Your task to perform on an android device: See recent photos Image 0: 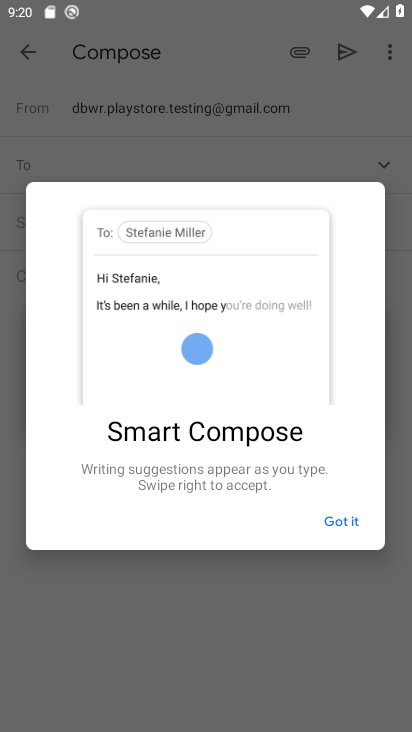
Step 0: press home button
Your task to perform on an android device: See recent photos Image 1: 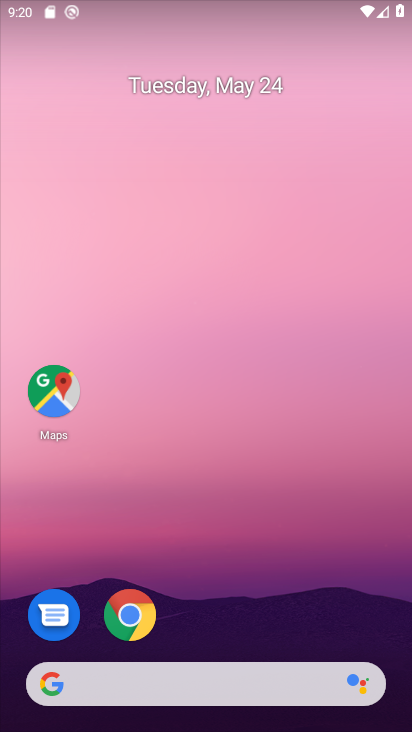
Step 1: drag from (381, 621) to (387, 346)
Your task to perform on an android device: See recent photos Image 2: 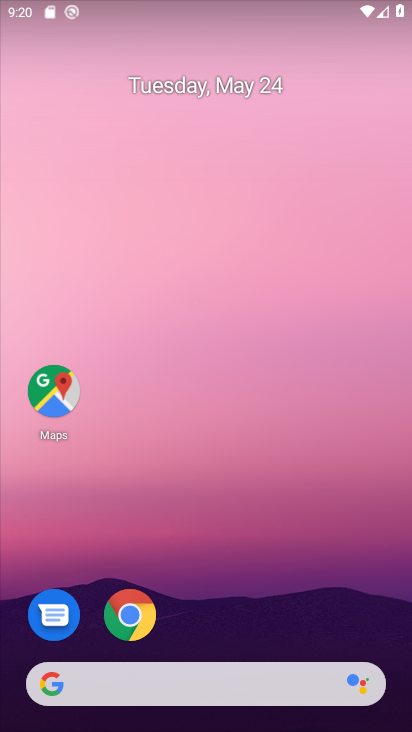
Step 2: drag from (368, 630) to (359, 290)
Your task to perform on an android device: See recent photos Image 3: 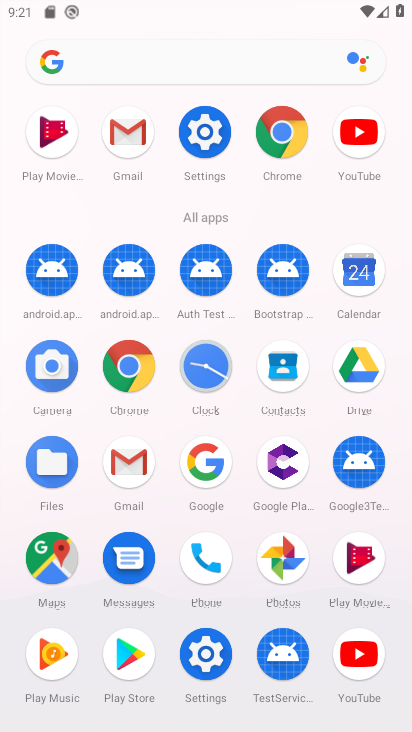
Step 3: click (278, 568)
Your task to perform on an android device: See recent photos Image 4: 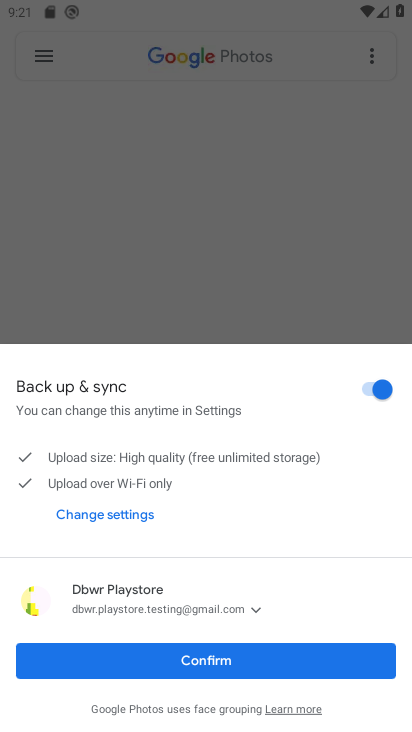
Step 4: click (274, 655)
Your task to perform on an android device: See recent photos Image 5: 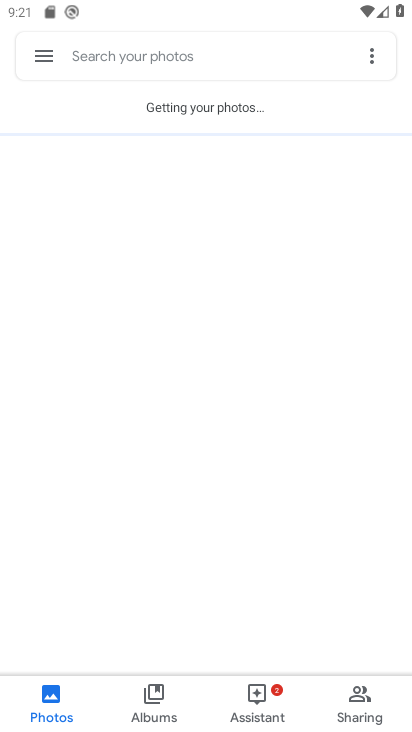
Step 5: task complete